Your task to perform on an android device: open a new tab in the chrome app Image 0: 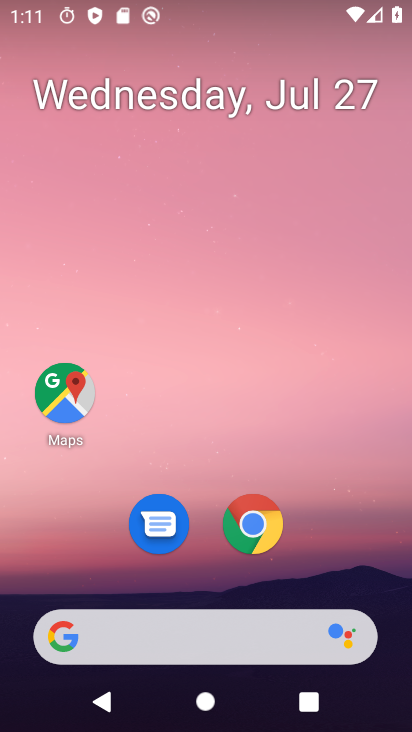
Step 0: drag from (364, 490) to (311, 96)
Your task to perform on an android device: open a new tab in the chrome app Image 1: 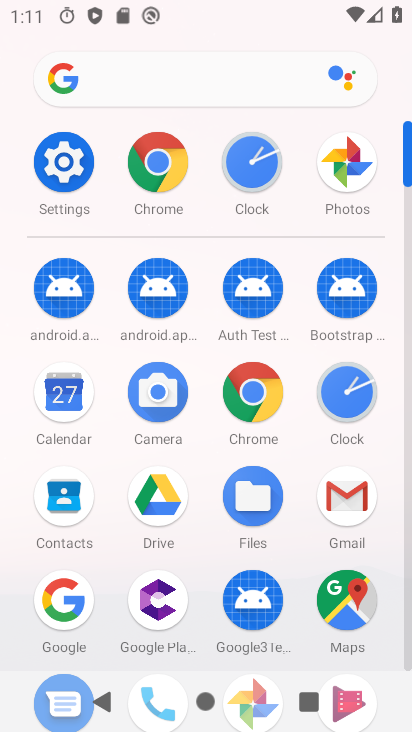
Step 1: click (162, 163)
Your task to perform on an android device: open a new tab in the chrome app Image 2: 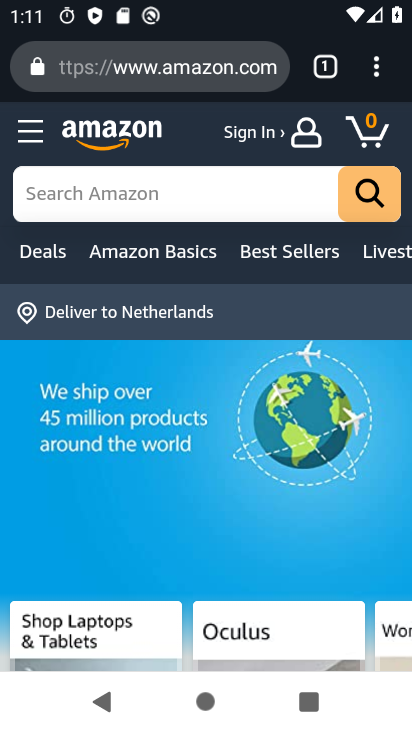
Step 2: click (376, 65)
Your task to perform on an android device: open a new tab in the chrome app Image 3: 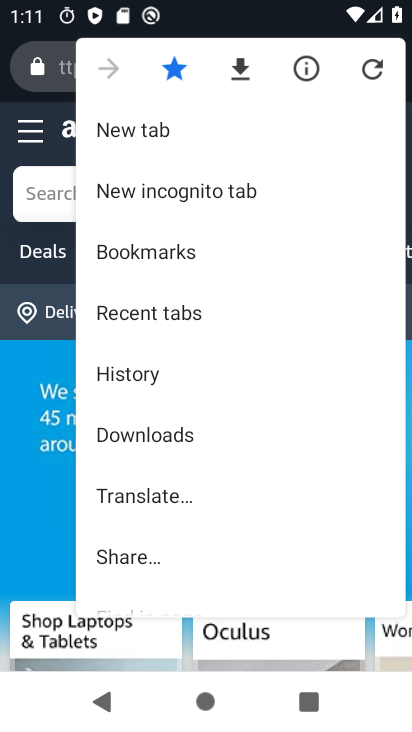
Step 3: click (260, 119)
Your task to perform on an android device: open a new tab in the chrome app Image 4: 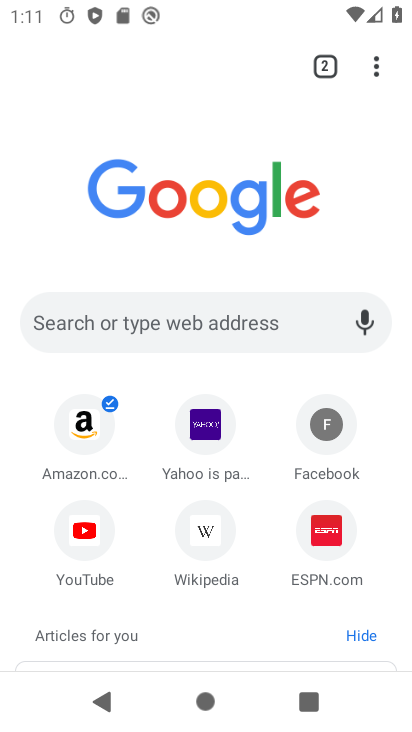
Step 4: task complete